Your task to perform on an android device: Open battery settings Image 0: 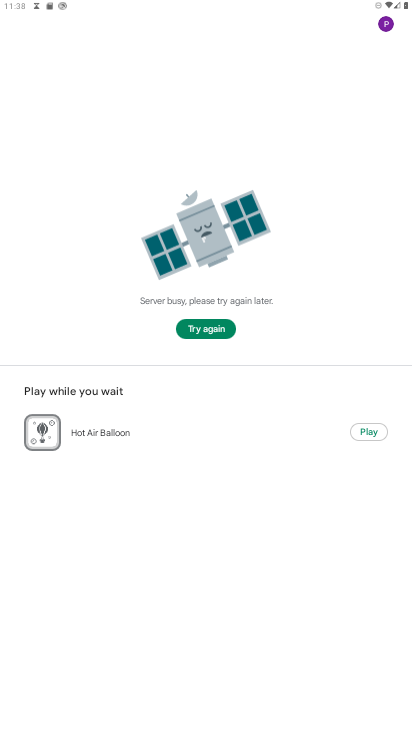
Step 0: press home button
Your task to perform on an android device: Open battery settings Image 1: 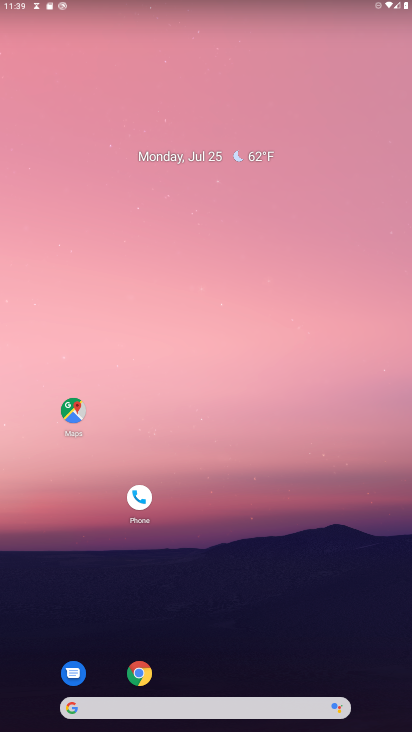
Step 1: drag from (219, 671) to (207, 337)
Your task to perform on an android device: Open battery settings Image 2: 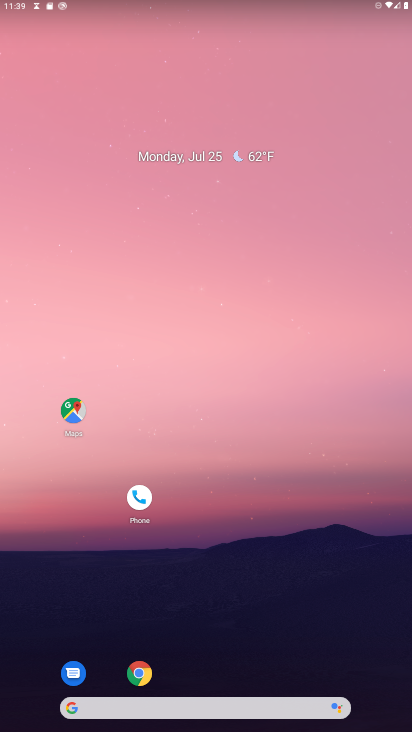
Step 2: drag from (251, 396) to (272, 152)
Your task to perform on an android device: Open battery settings Image 3: 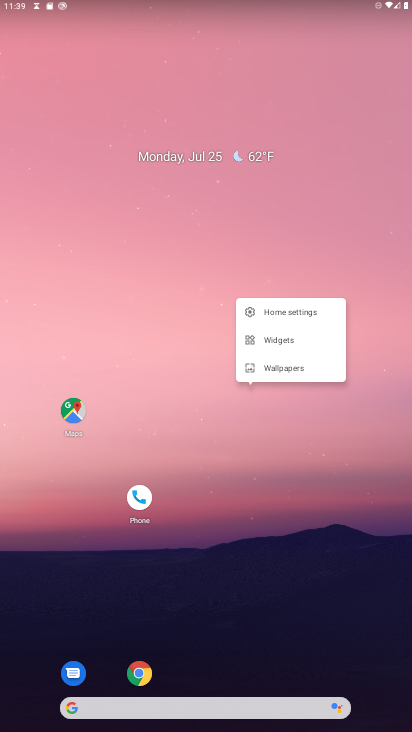
Step 3: drag from (239, 641) to (202, 203)
Your task to perform on an android device: Open battery settings Image 4: 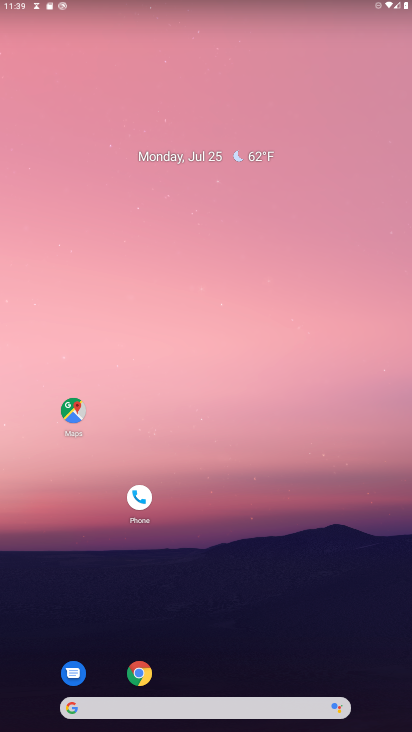
Step 4: drag from (248, 627) to (197, 30)
Your task to perform on an android device: Open battery settings Image 5: 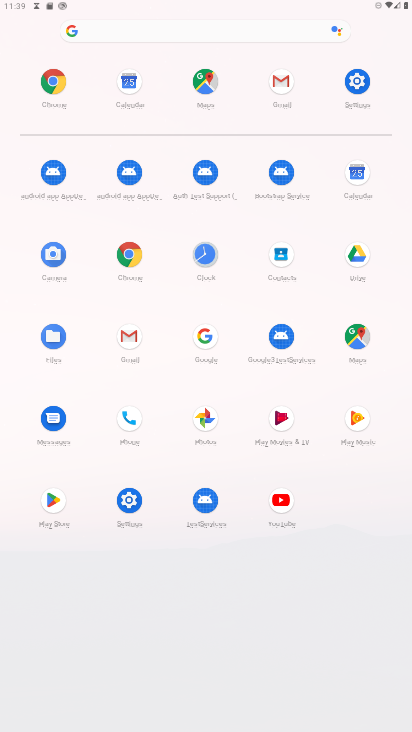
Step 5: click (355, 74)
Your task to perform on an android device: Open battery settings Image 6: 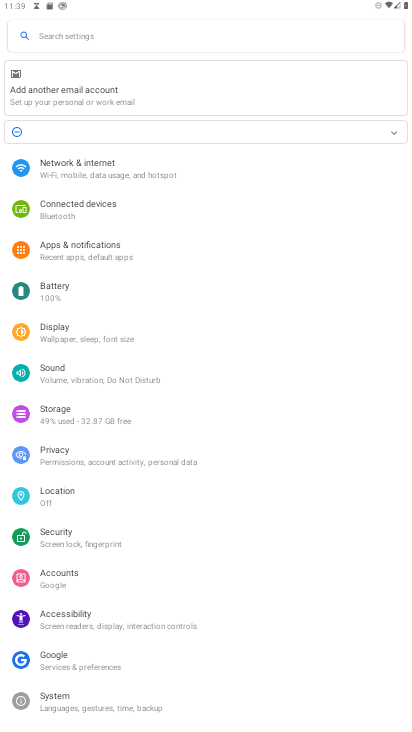
Step 6: click (56, 287)
Your task to perform on an android device: Open battery settings Image 7: 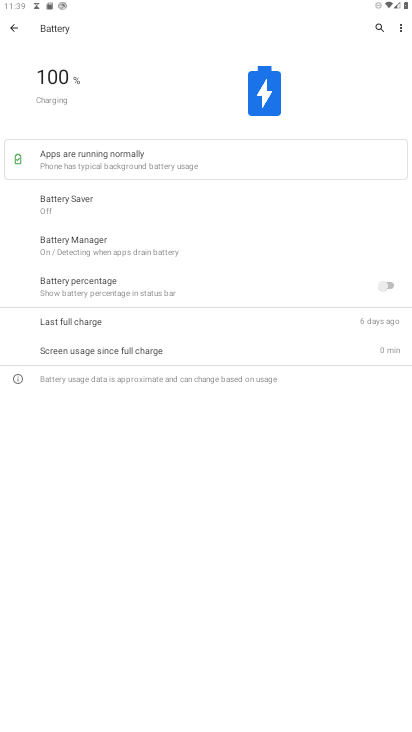
Step 7: task complete